Your task to perform on an android device: toggle notification dots Image 0: 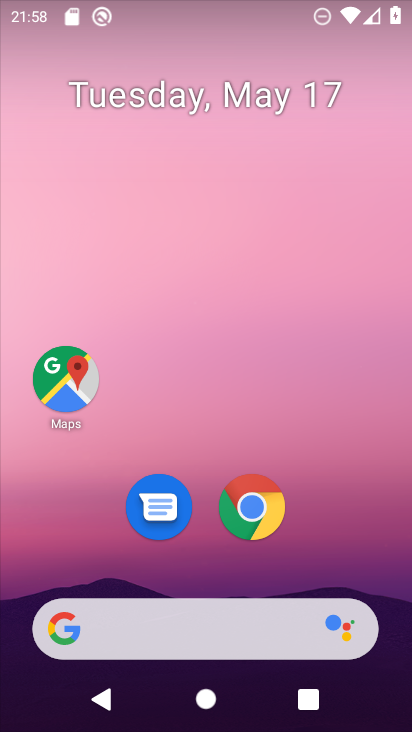
Step 0: drag from (346, 570) to (368, 13)
Your task to perform on an android device: toggle notification dots Image 1: 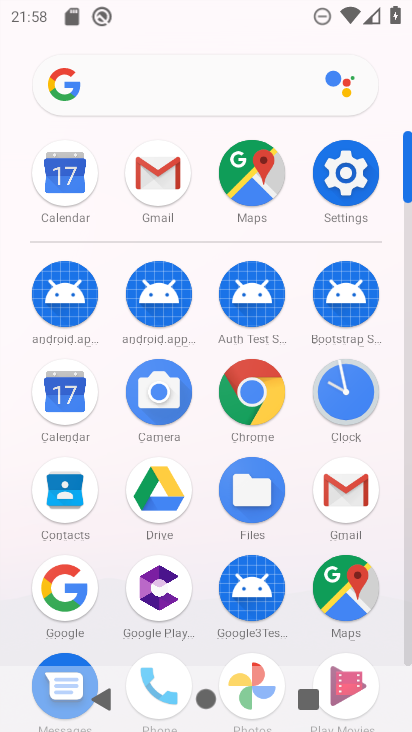
Step 1: click (340, 177)
Your task to perform on an android device: toggle notification dots Image 2: 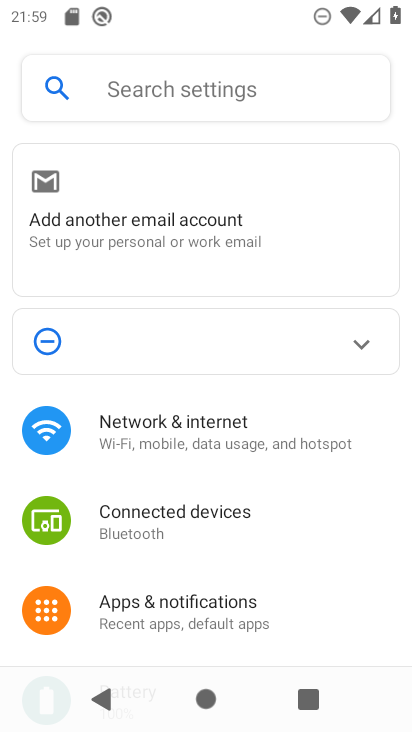
Step 2: click (167, 607)
Your task to perform on an android device: toggle notification dots Image 3: 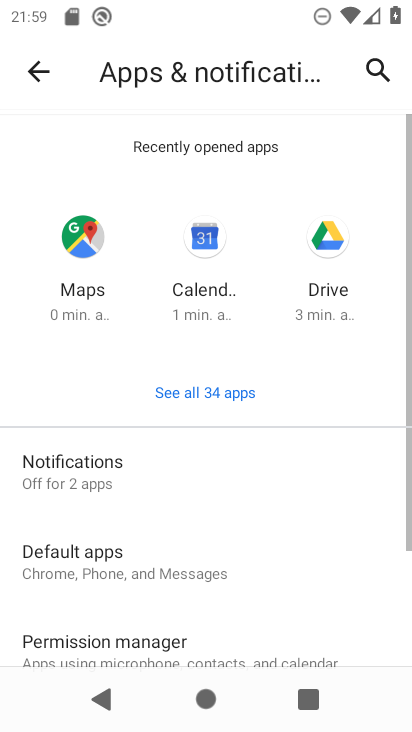
Step 3: click (41, 473)
Your task to perform on an android device: toggle notification dots Image 4: 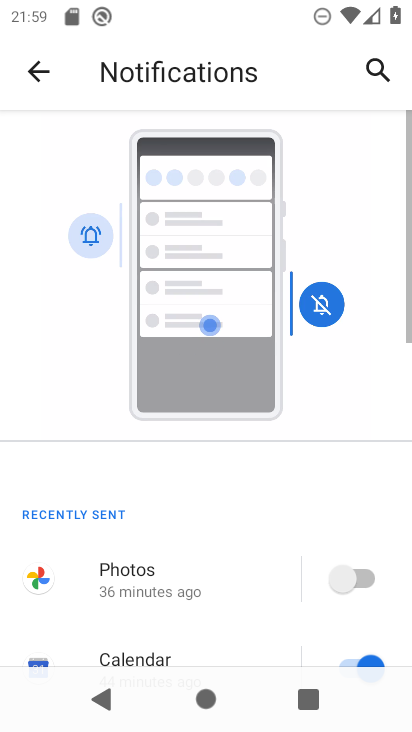
Step 4: drag from (193, 575) to (187, 7)
Your task to perform on an android device: toggle notification dots Image 5: 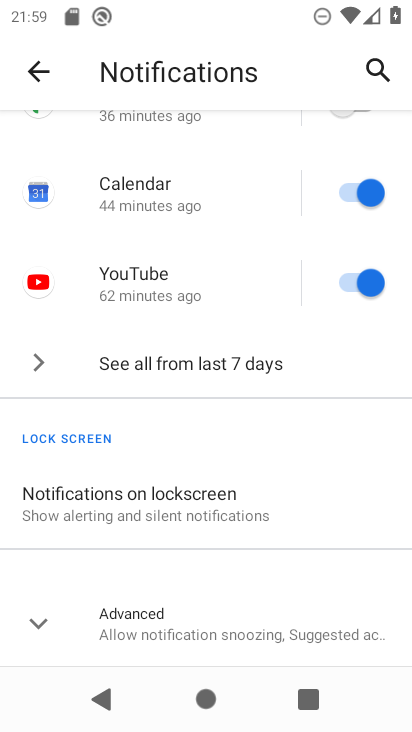
Step 5: click (33, 624)
Your task to perform on an android device: toggle notification dots Image 6: 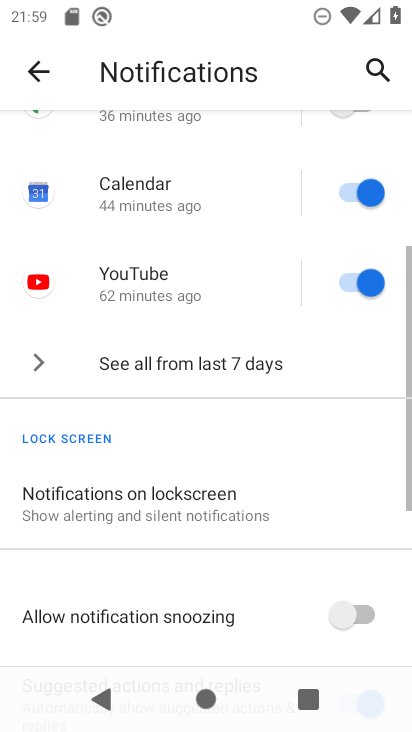
Step 6: drag from (147, 606) to (131, 123)
Your task to perform on an android device: toggle notification dots Image 7: 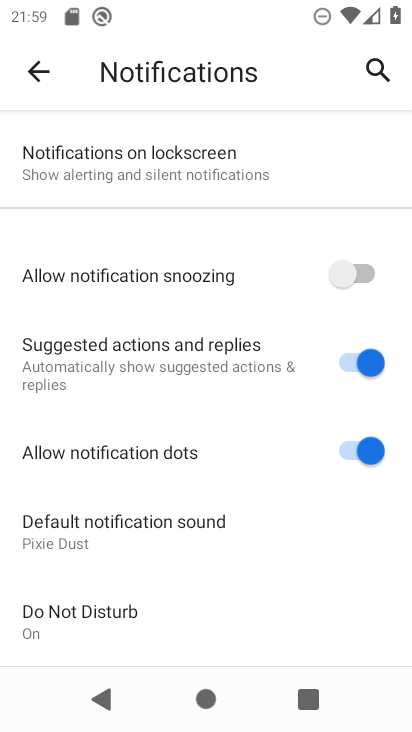
Step 7: click (372, 457)
Your task to perform on an android device: toggle notification dots Image 8: 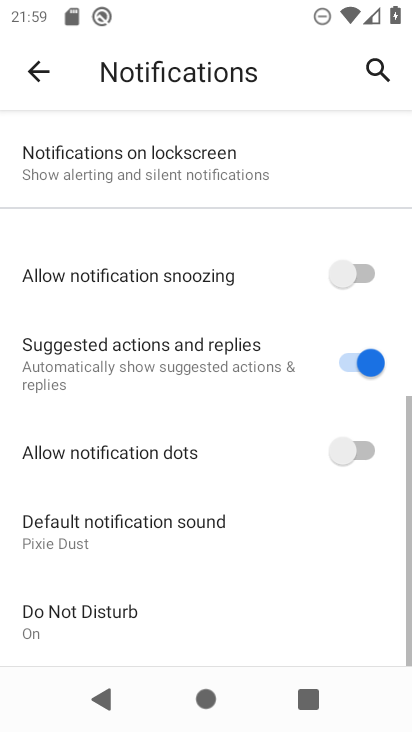
Step 8: task complete